Your task to perform on an android device: Show me recent news Image 0: 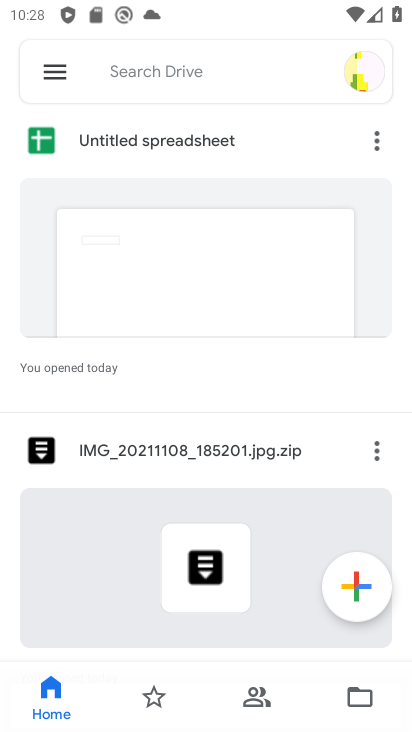
Step 0: press home button
Your task to perform on an android device: Show me recent news Image 1: 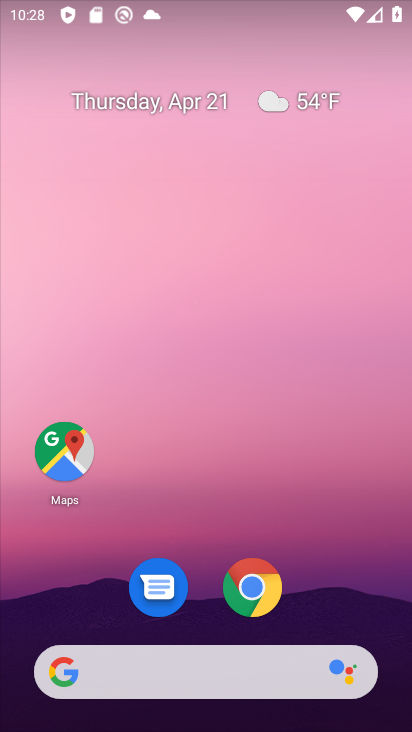
Step 1: drag from (203, 674) to (210, 88)
Your task to perform on an android device: Show me recent news Image 2: 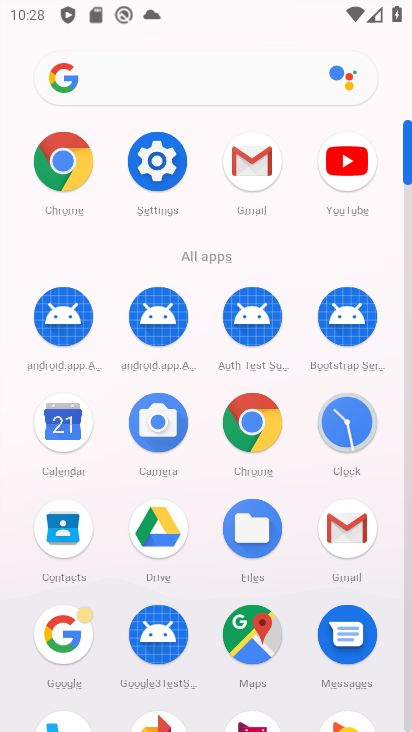
Step 2: click (77, 626)
Your task to perform on an android device: Show me recent news Image 3: 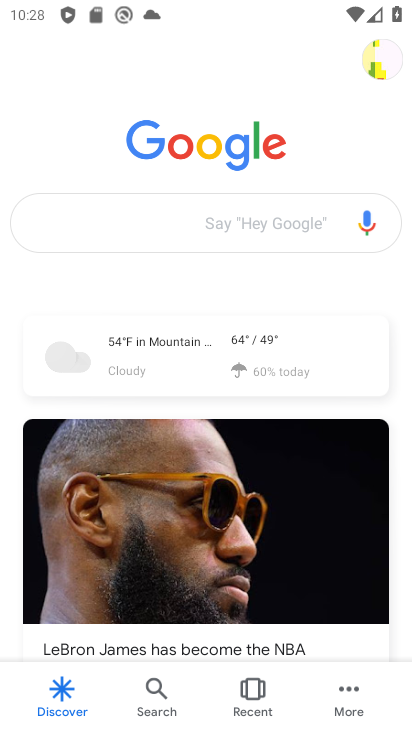
Step 3: task complete